Your task to perform on an android device: Show the shopping cart on target.com. Add dell alienware to the cart on target.com Image 0: 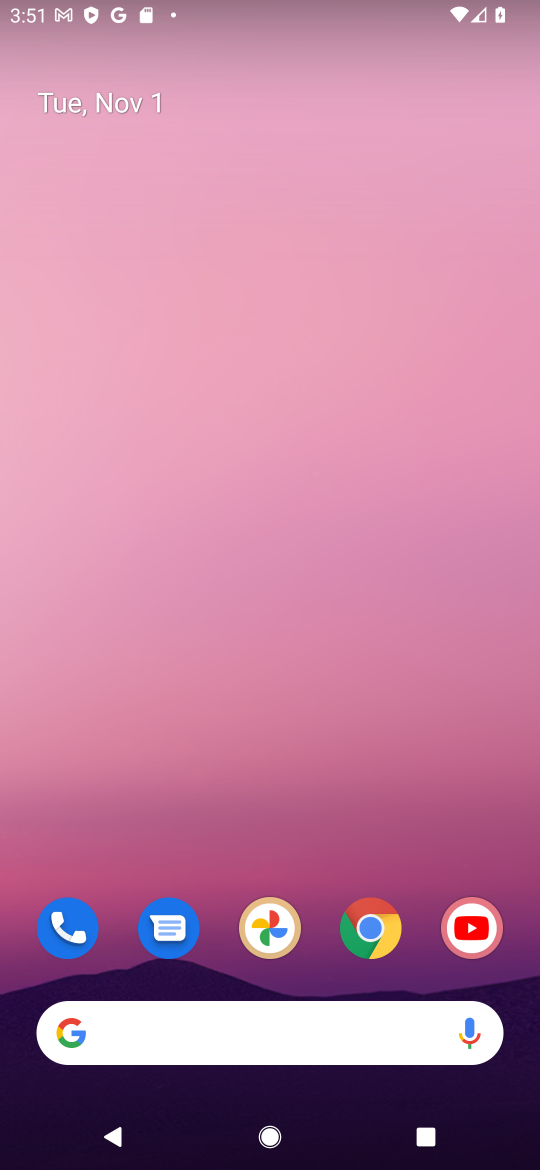
Step 0: click (376, 942)
Your task to perform on an android device: Show the shopping cart on target.com. Add dell alienware to the cart on target.com Image 1: 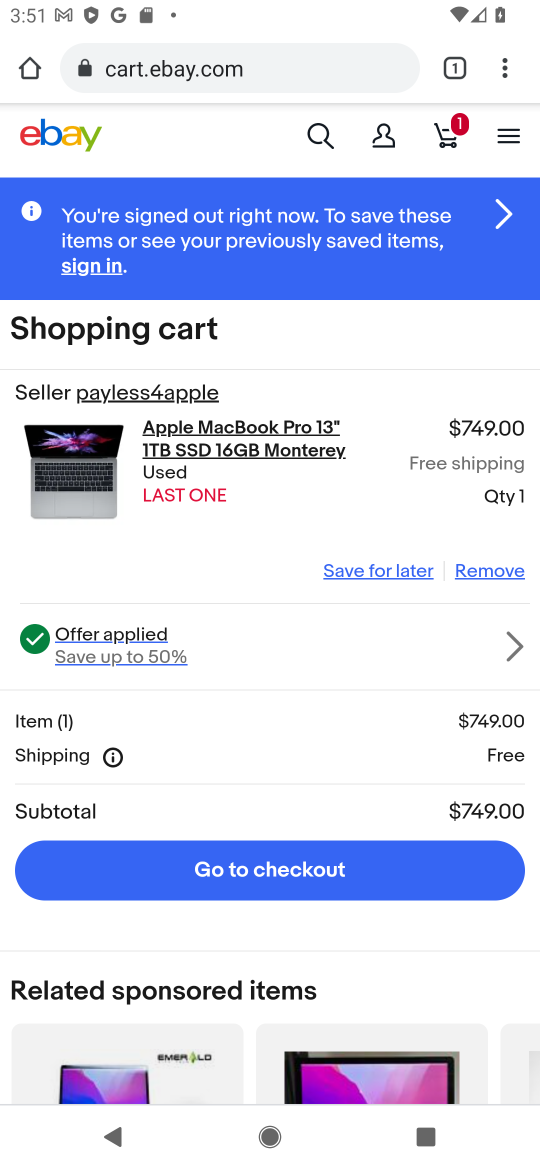
Step 1: click (261, 80)
Your task to perform on an android device: Show the shopping cart on target.com. Add dell alienware to the cart on target.com Image 2: 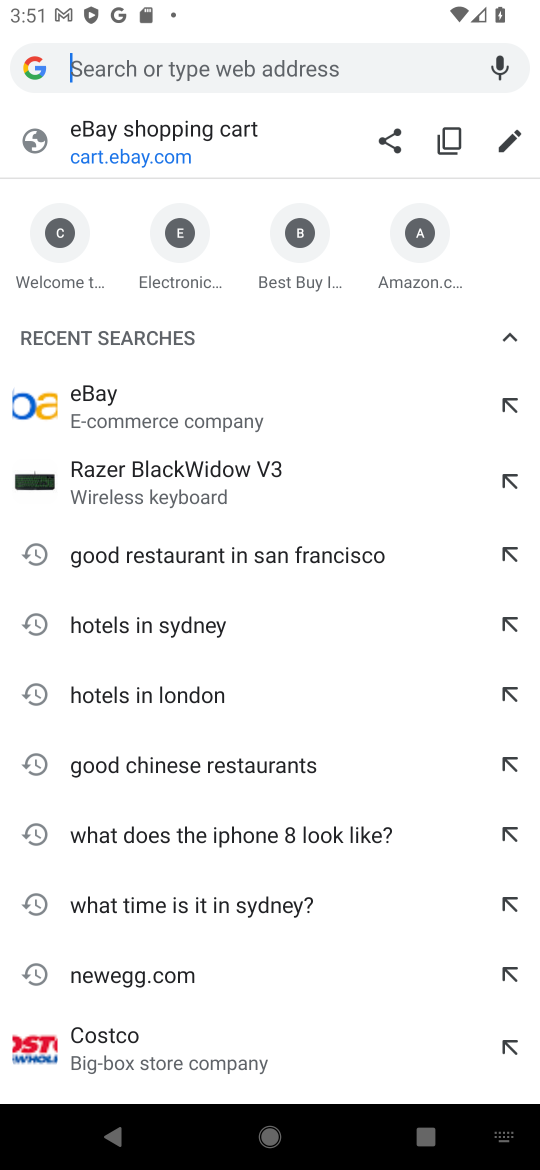
Step 2: type "target.com"
Your task to perform on an android device: Show the shopping cart on target.com. Add dell alienware to the cart on target.com Image 3: 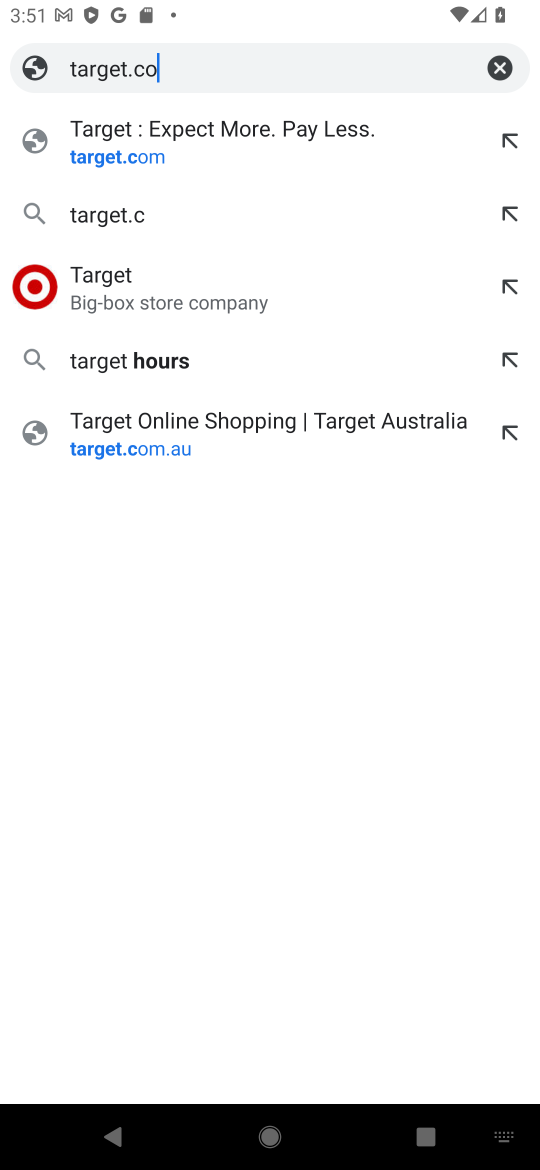
Step 3: type ""
Your task to perform on an android device: Show the shopping cart on target.com. Add dell alienware to the cart on target.com Image 4: 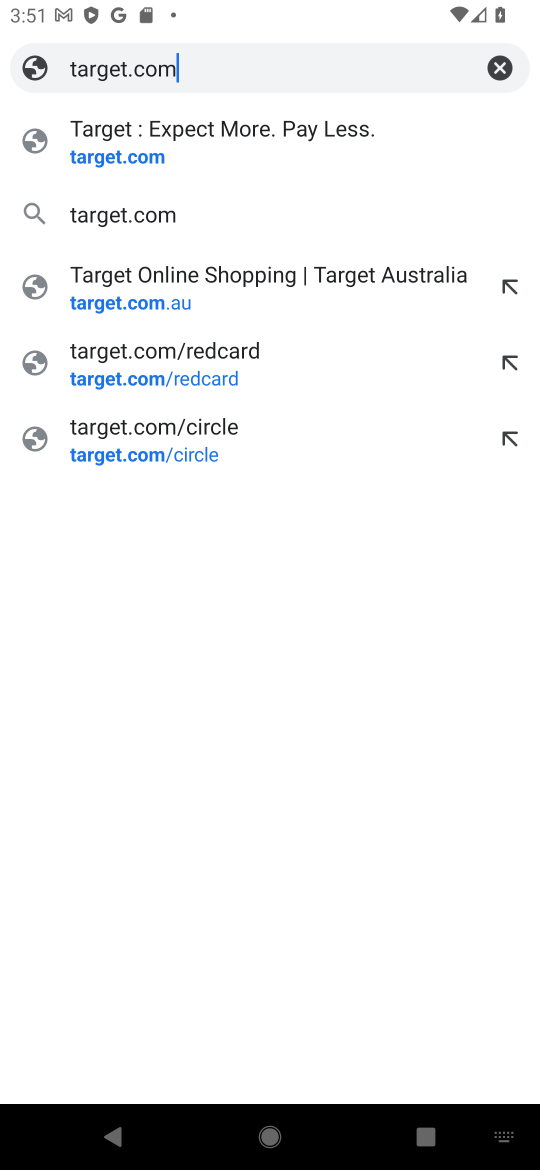
Step 4: task complete